Your task to perform on an android device: delete a single message in the gmail app Image 0: 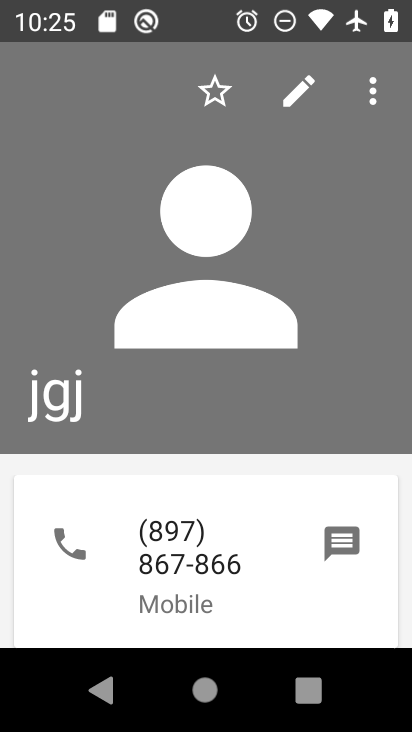
Step 0: press home button
Your task to perform on an android device: delete a single message in the gmail app Image 1: 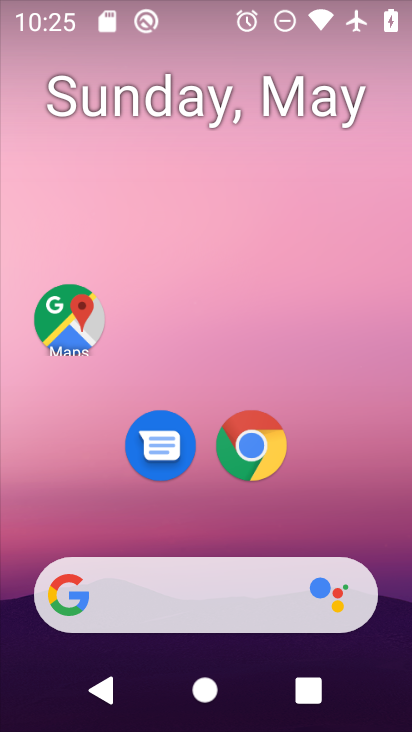
Step 1: drag from (254, 527) to (263, 216)
Your task to perform on an android device: delete a single message in the gmail app Image 2: 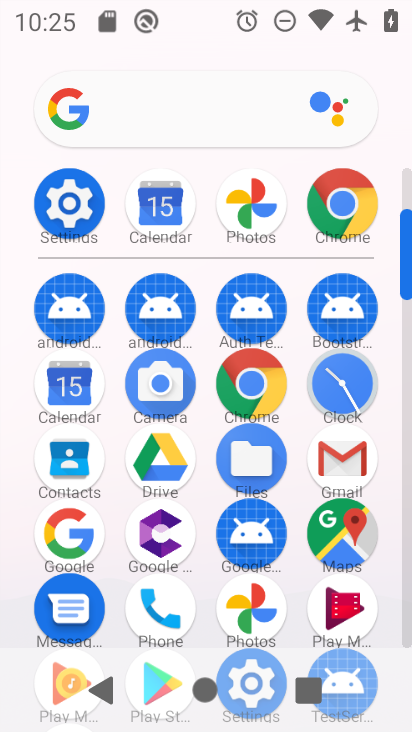
Step 2: click (348, 472)
Your task to perform on an android device: delete a single message in the gmail app Image 3: 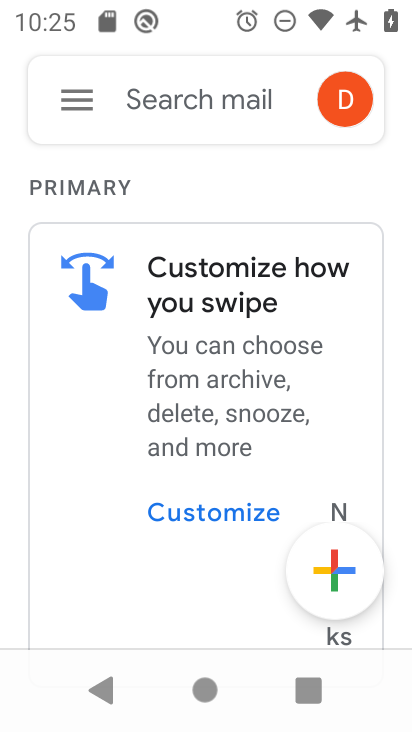
Step 3: click (81, 97)
Your task to perform on an android device: delete a single message in the gmail app Image 4: 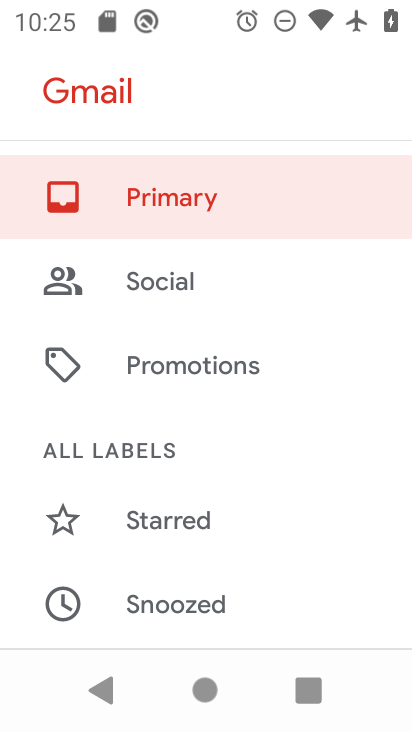
Step 4: drag from (190, 391) to (218, 203)
Your task to perform on an android device: delete a single message in the gmail app Image 5: 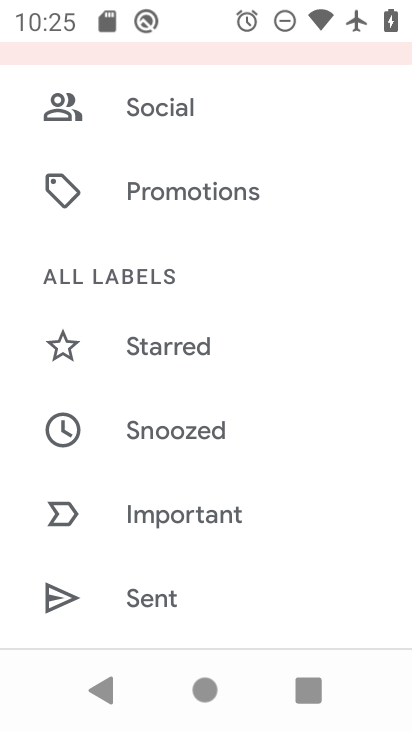
Step 5: drag from (174, 524) to (219, 283)
Your task to perform on an android device: delete a single message in the gmail app Image 6: 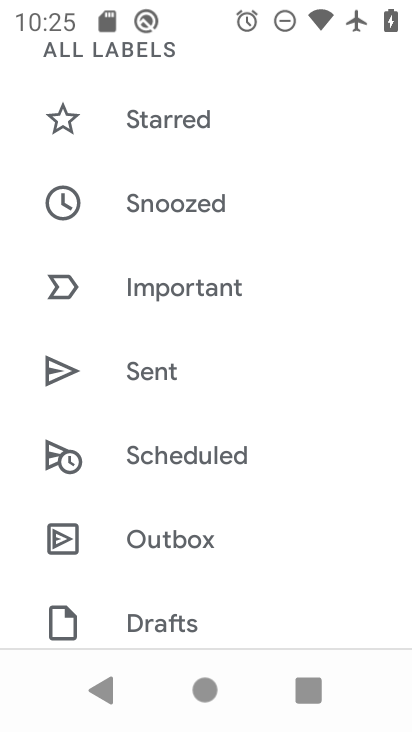
Step 6: click (237, 488)
Your task to perform on an android device: delete a single message in the gmail app Image 7: 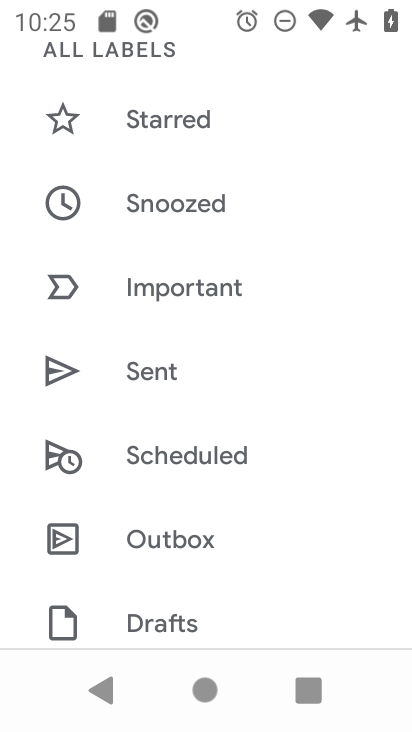
Step 7: drag from (261, 399) to (288, 322)
Your task to perform on an android device: delete a single message in the gmail app Image 8: 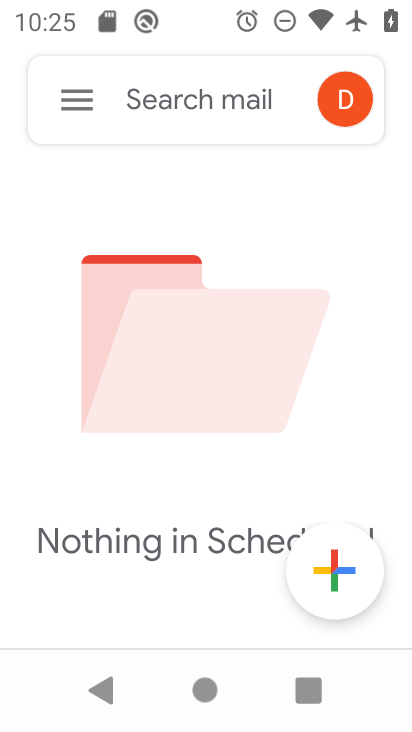
Step 8: click (83, 107)
Your task to perform on an android device: delete a single message in the gmail app Image 9: 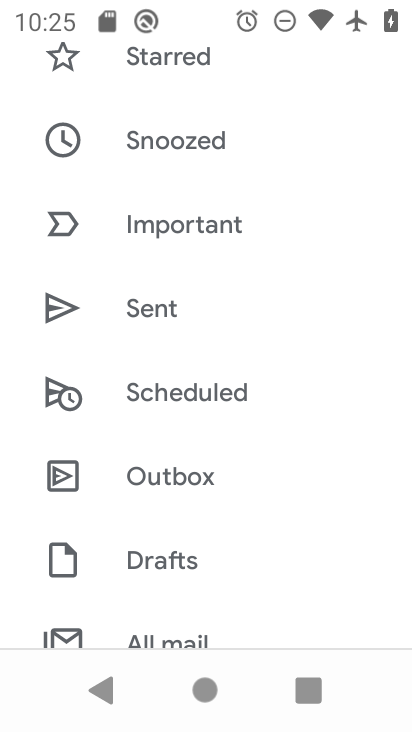
Step 9: drag from (225, 512) to (314, 134)
Your task to perform on an android device: delete a single message in the gmail app Image 10: 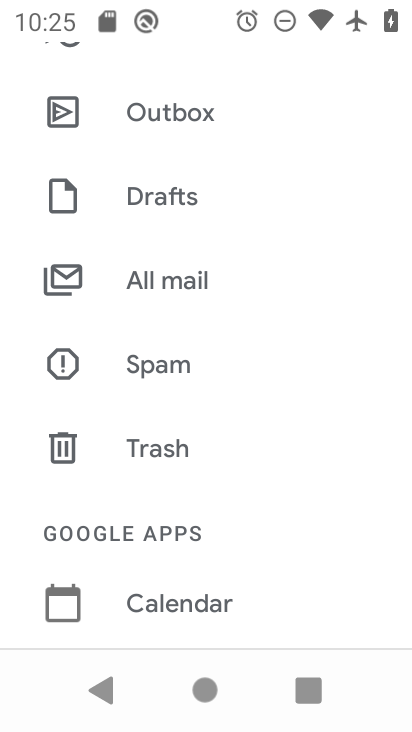
Step 10: click (213, 290)
Your task to perform on an android device: delete a single message in the gmail app Image 11: 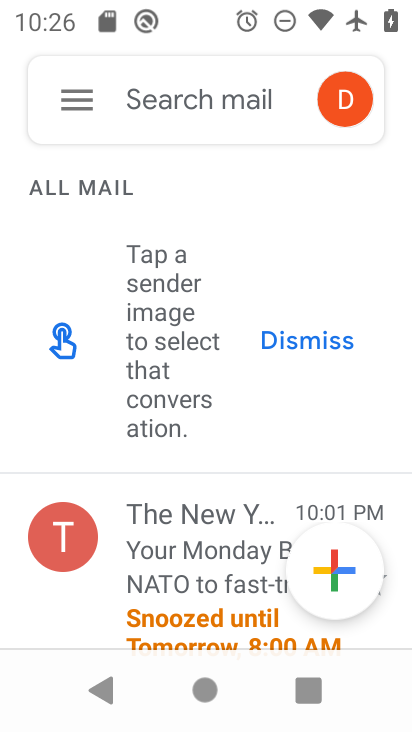
Step 11: click (170, 548)
Your task to perform on an android device: delete a single message in the gmail app Image 12: 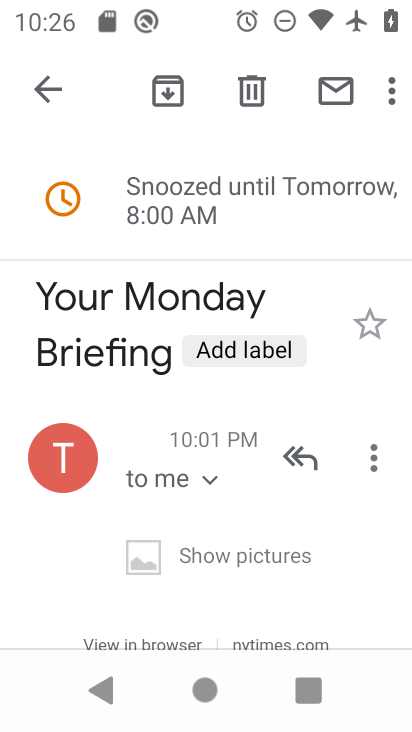
Step 12: click (255, 94)
Your task to perform on an android device: delete a single message in the gmail app Image 13: 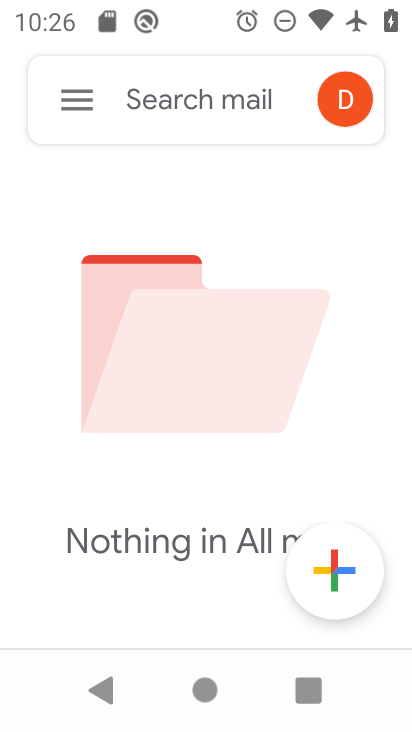
Step 13: task complete